Your task to perform on an android device: turn off location Image 0: 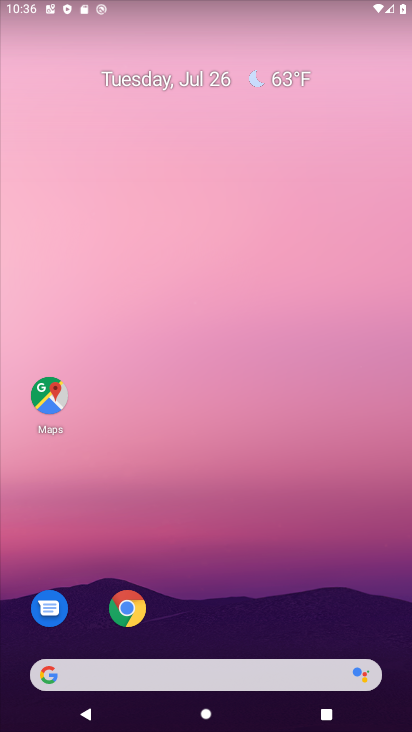
Step 0: press home button
Your task to perform on an android device: turn off location Image 1: 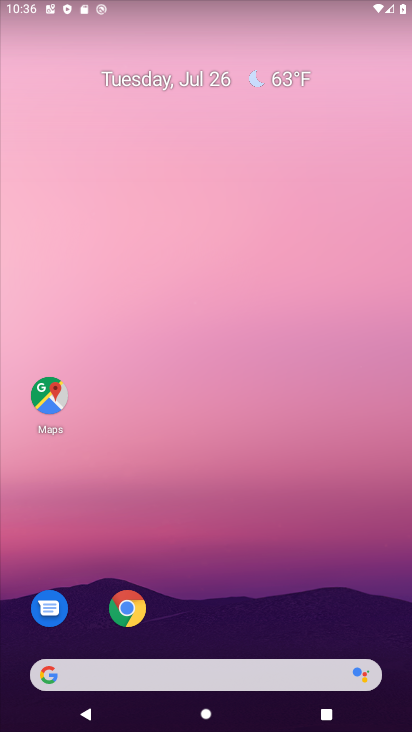
Step 1: drag from (203, 627) to (224, 56)
Your task to perform on an android device: turn off location Image 2: 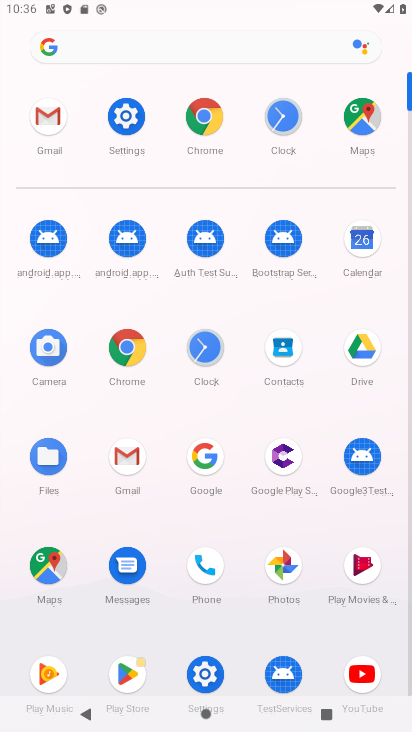
Step 2: click (121, 127)
Your task to perform on an android device: turn off location Image 3: 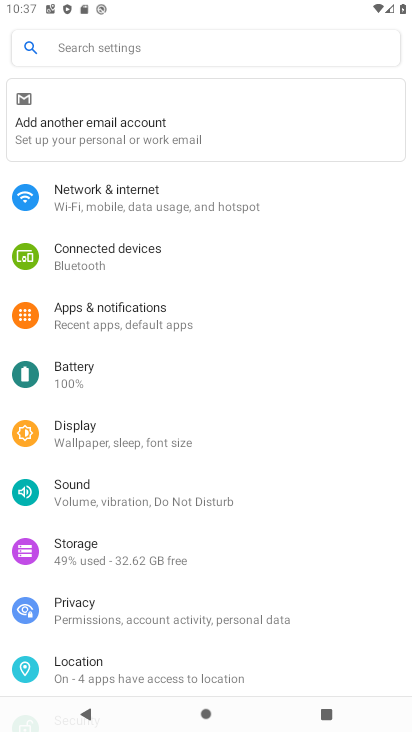
Step 3: click (74, 670)
Your task to perform on an android device: turn off location Image 4: 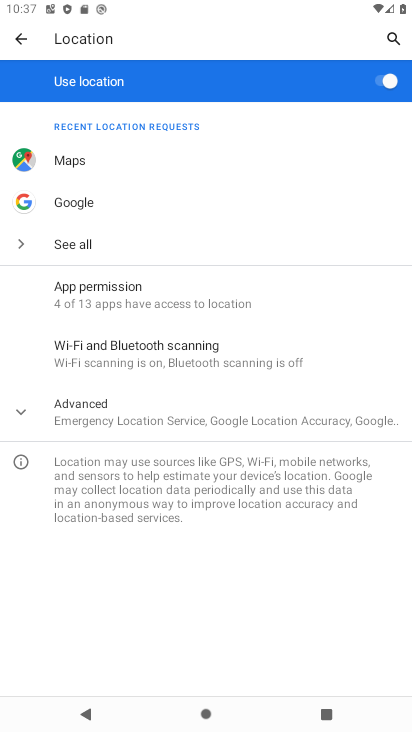
Step 4: click (388, 83)
Your task to perform on an android device: turn off location Image 5: 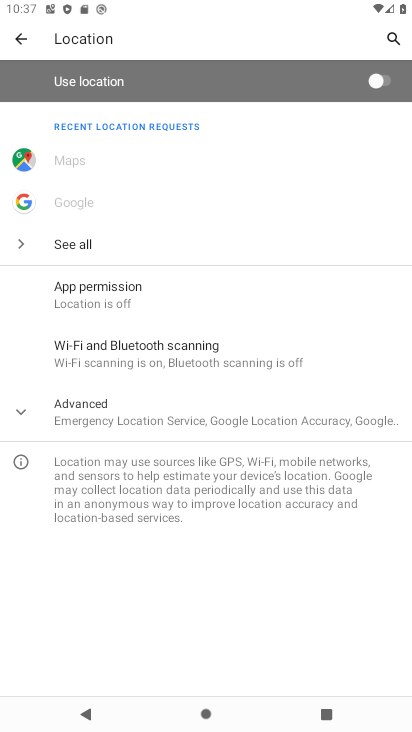
Step 5: task complete